Your task to perform on an android device: change alarm snooze length Image 0: 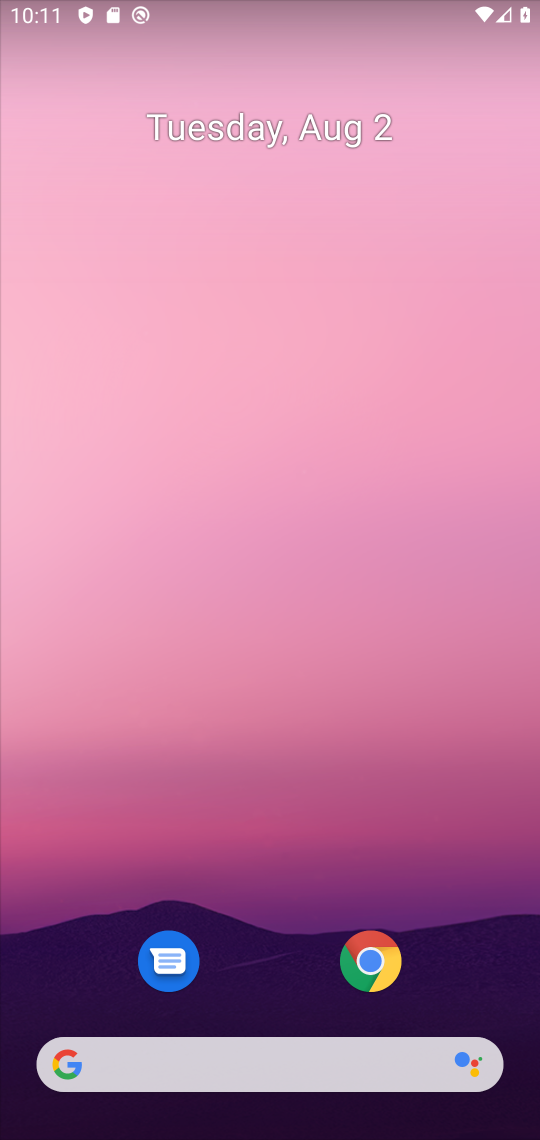
Step 0: press home button
Your task to perform on an android device: change alarm snooze length Image 1: 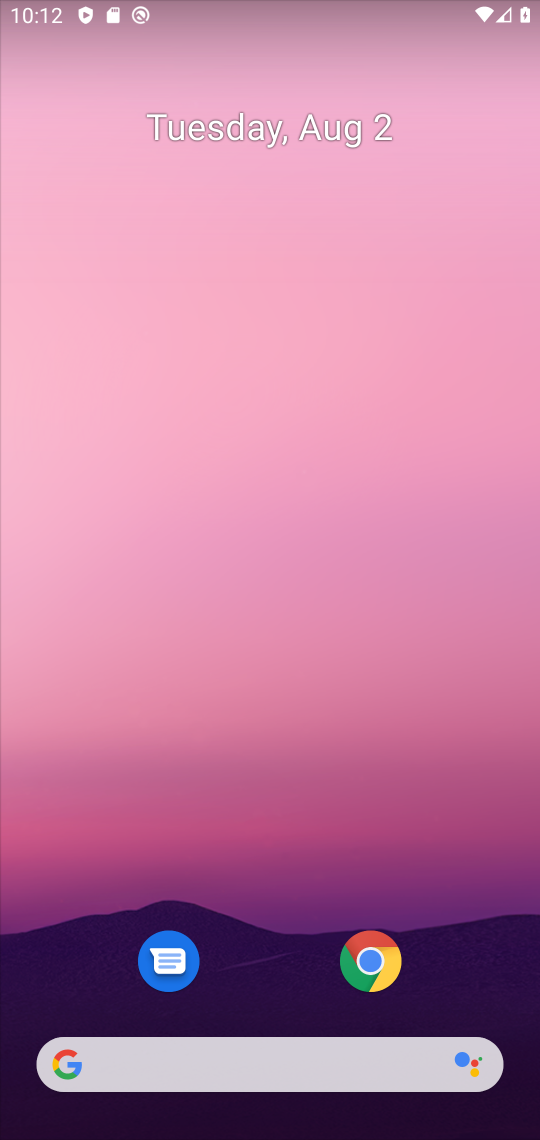
Step 1: drag from (285, 1006) to (215, 97)
Your task to perform on an android device: change alarm snooze length Image 2: 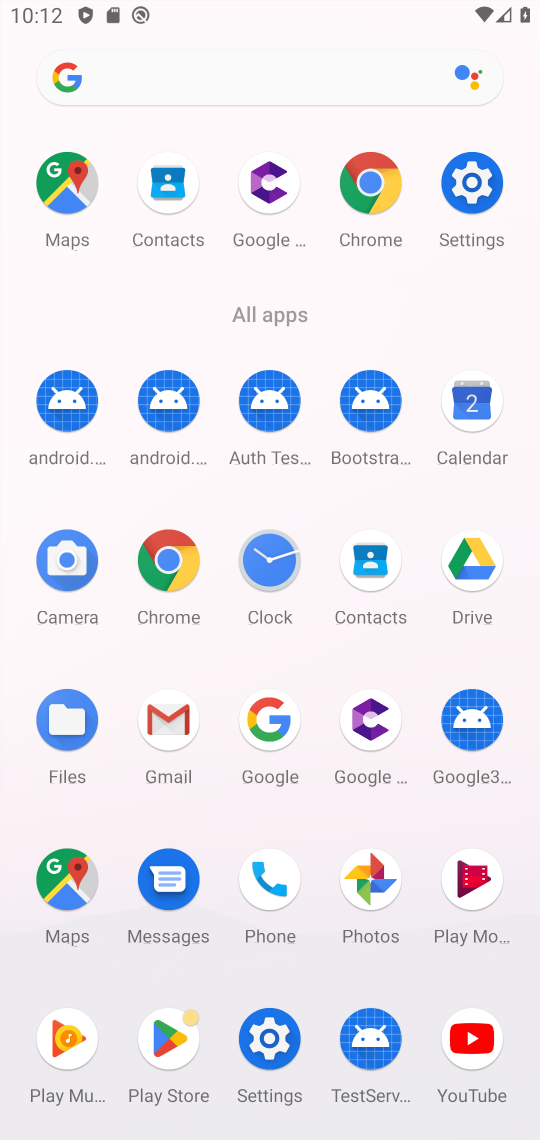
Step 2: click (263, 543)
Your task to perform on an android device: change alarm snooze length Image 3: 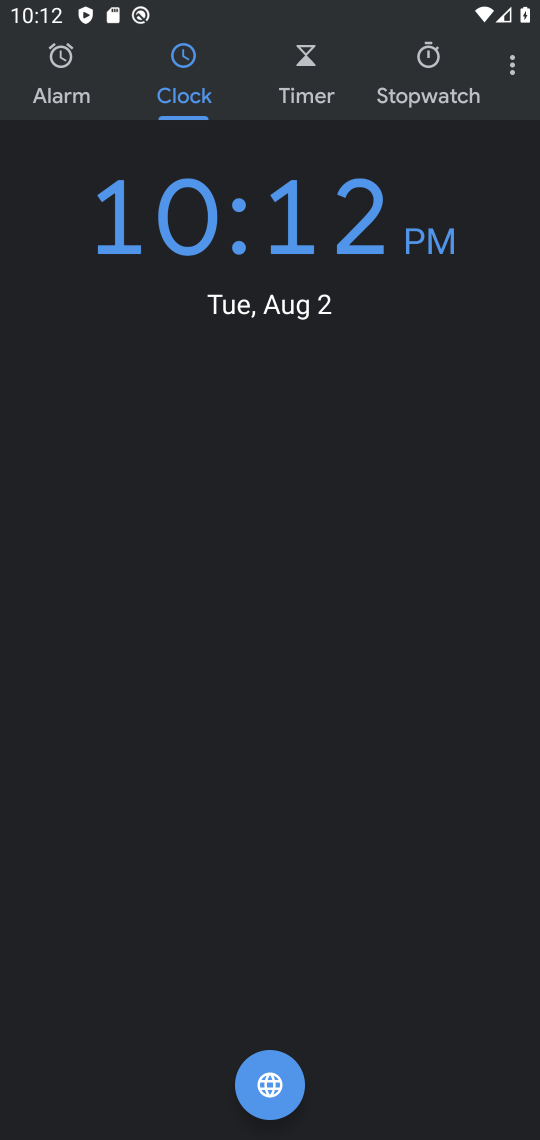
Step 3: click (516, 64)
Your task to perform on an android device: change alarm snooze length Image 4: 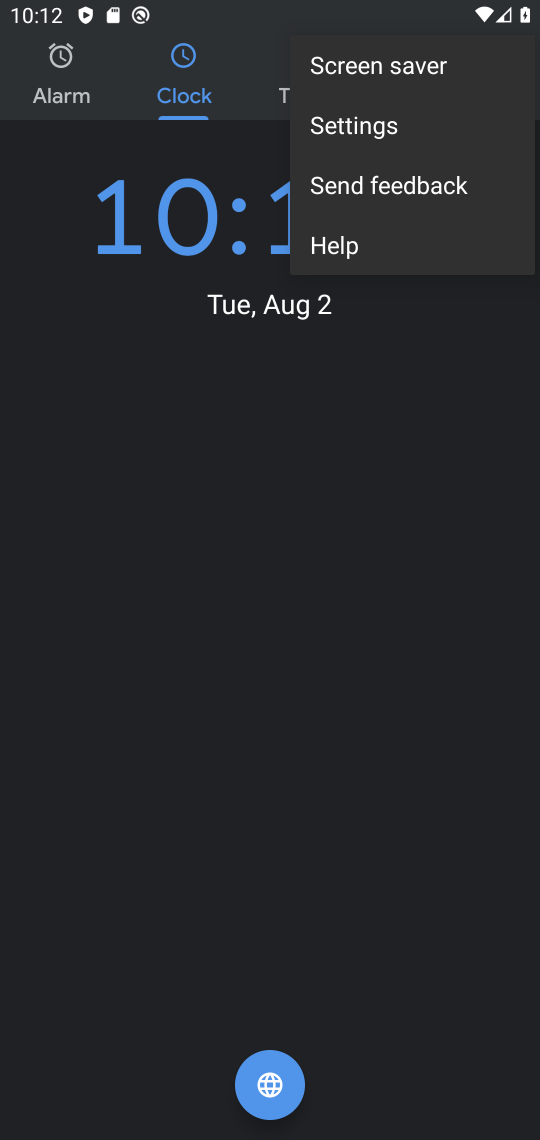
Step 4: click (407, 137)
Your task to perform on an android device: change alarm snooze length Image 5: 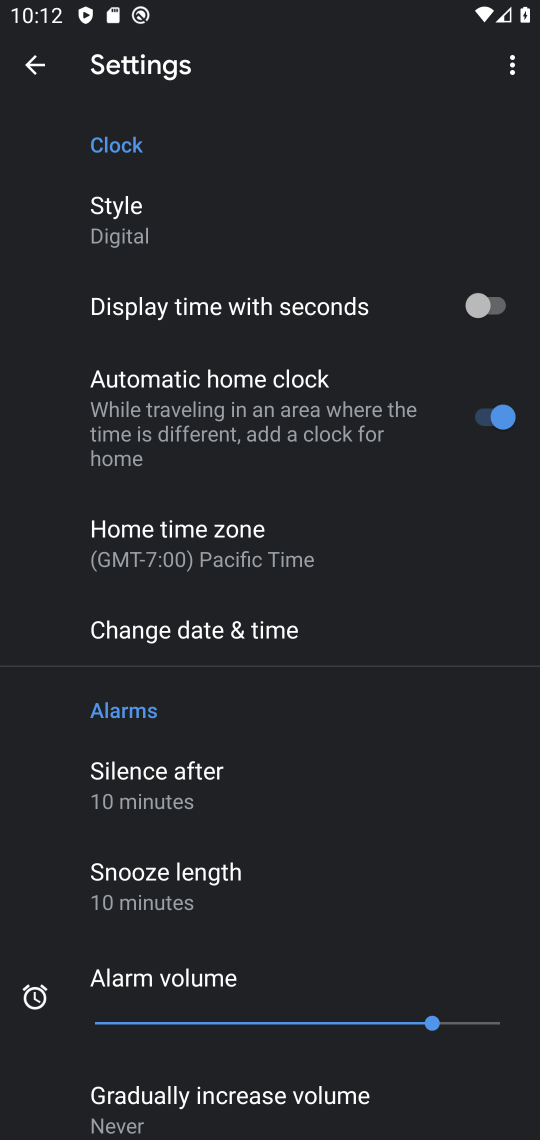
Step 5: click (249, 893)
Your task to perform on an android device: change alarm snooze length Image 6: 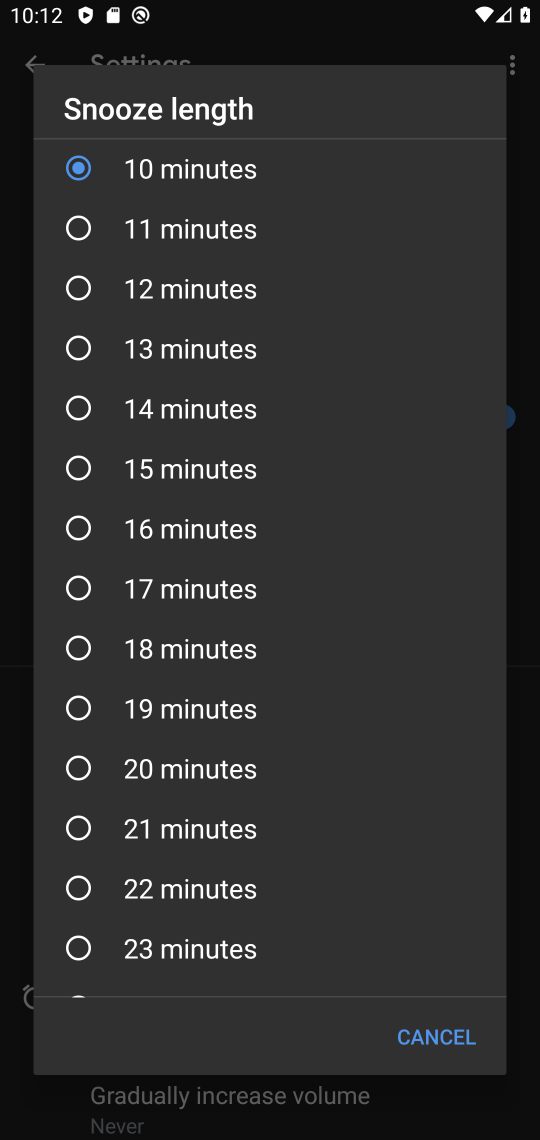
Step 6: drag from (123, 264) to (138, 794)
Your task to perform on an android device: change alarm snooze length Image 7: 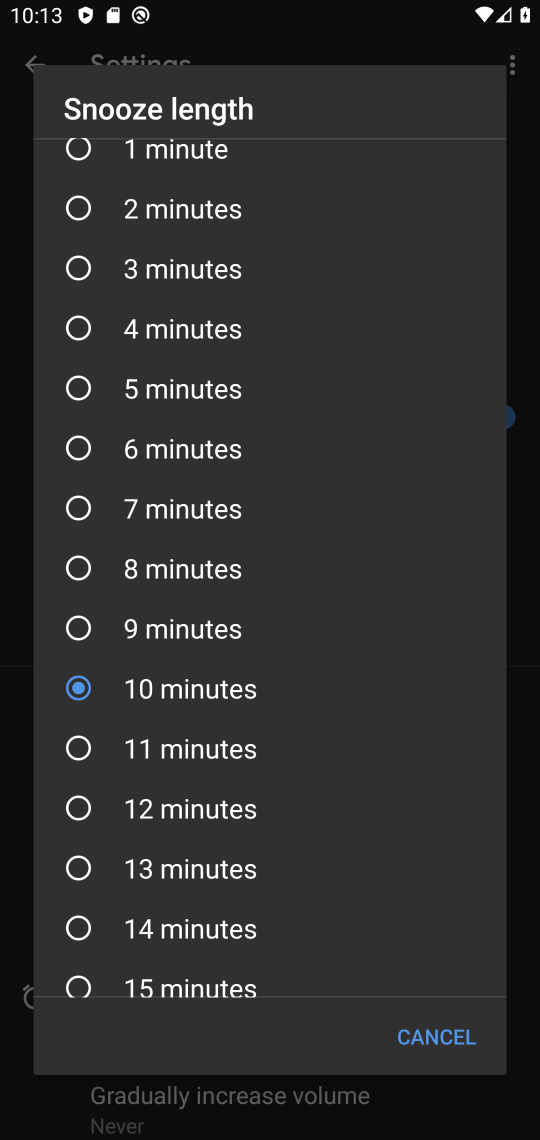
Step 7: click (74, 398)
Your task to perform on an android device: change alarm snooze length Image 8: 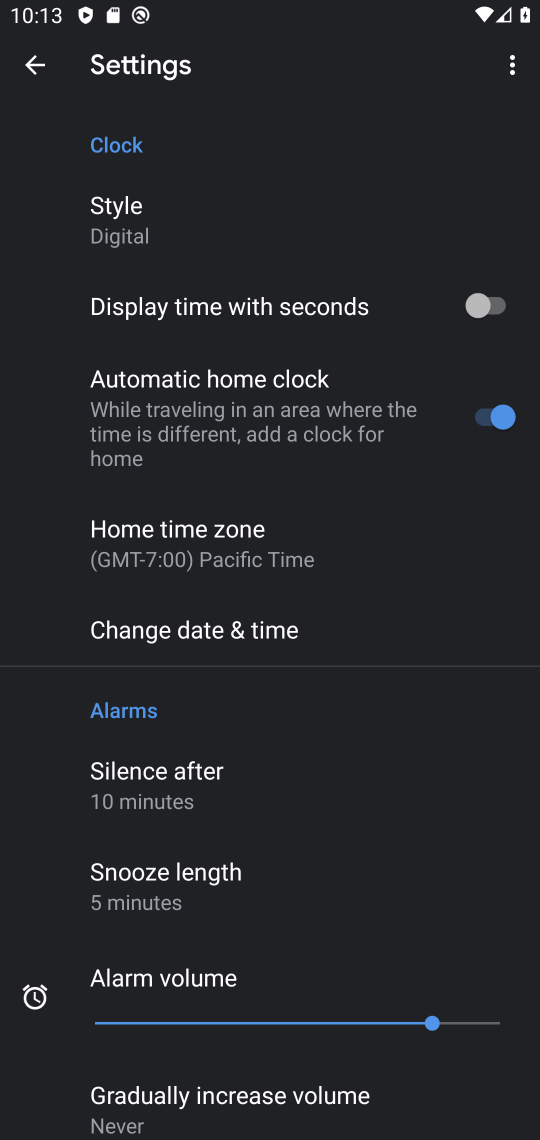
Step 8: task complete